Your task to perform on an android device: Search for sushi restaurants on Maps Image 0: 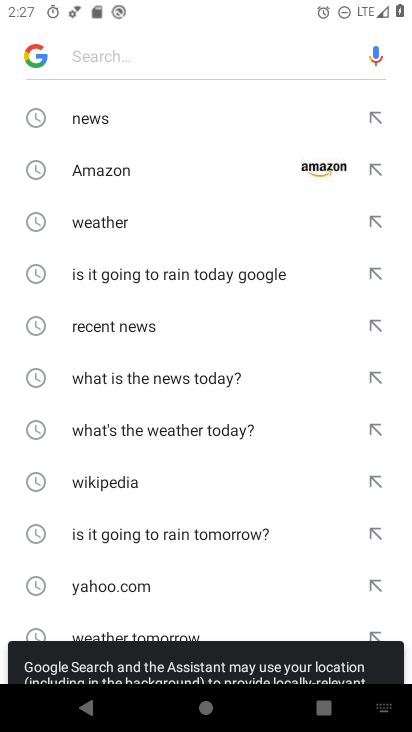
Step 0: press home button
Your task to perform on an android device: Search for sushi restaurants on Maps Image 1: 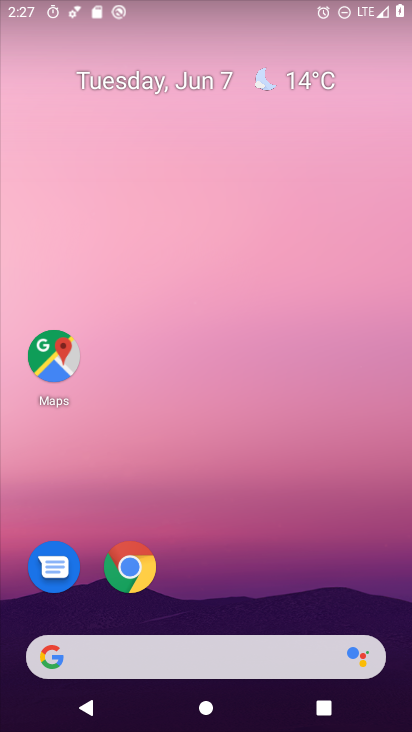
Step 1: drag from (365, 570) to (399, 80)
Your task to perform on an android device: Search for sushi restaurants on Maps Image 2: 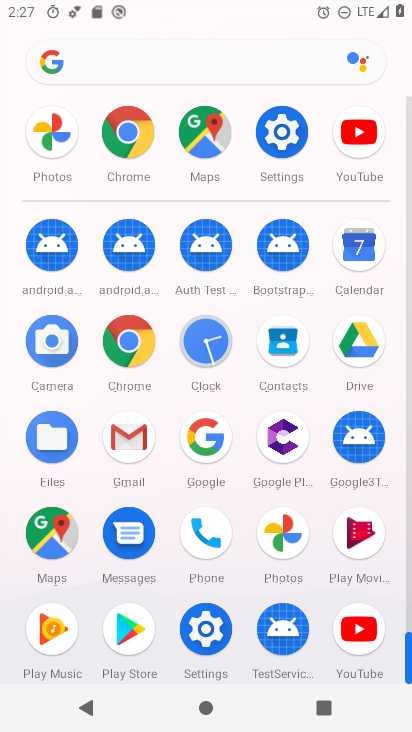
Step 2: click (213, 152)
Your task to perform on an android device: Search for sushi restaurants on Maps Image 3: 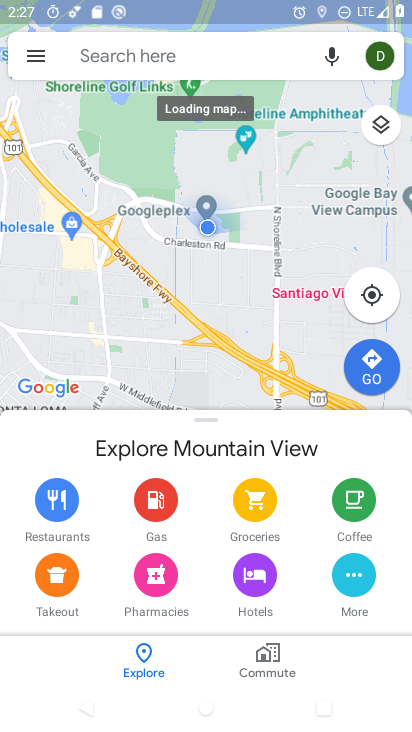
Step 3: click (186, 58)
Your task to perform on an android device: Search for sushi restaurants on Maps Image 4: 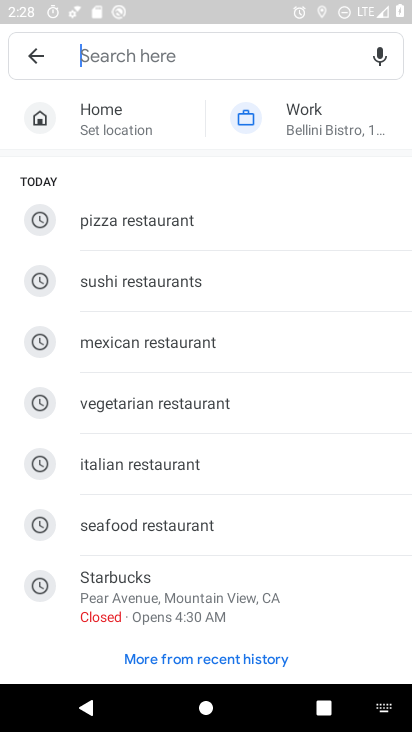
Step 4: click (147, 282)
Your task to perform on an android device: Search for sushi restaurants on Maps Image 5: 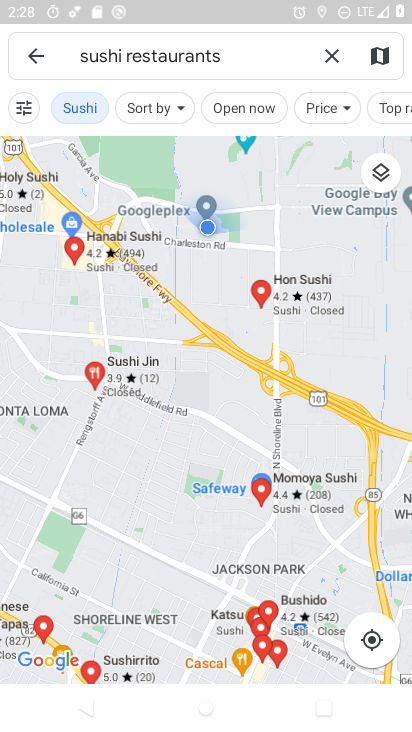
Step 5: task complete